Your task to perform on an android device: Search for sushi restaurants on Maps Image 0: 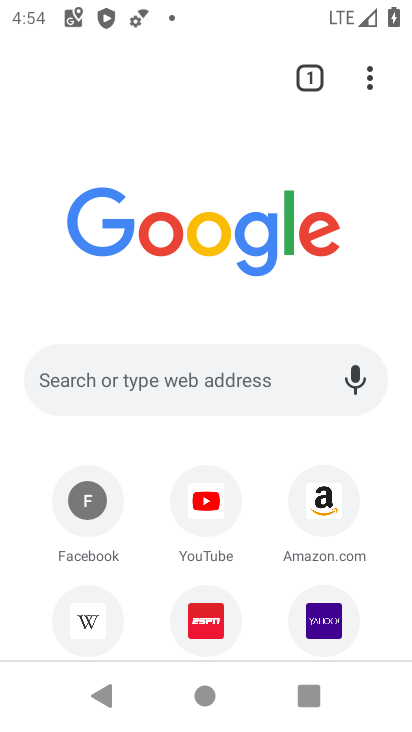
Step 0: press home button
Your task to perform on an android device: Search for sushi restaurants on Maps Image 1: 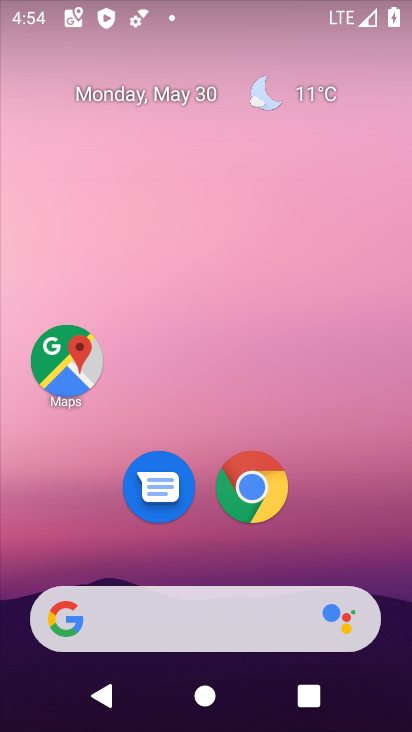
Step 1: click (68, 363)
Your task to perform on an android device: Search for sushi restaurants on Maps Image 2: 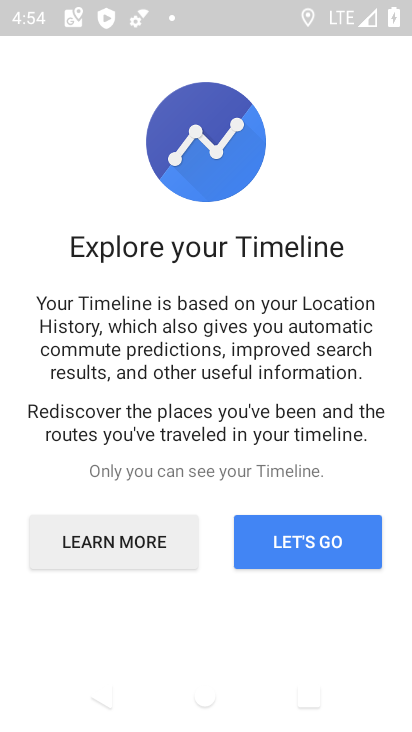
Step 2: press back button
Your task to perform on an android device: Search for sushi restaurants on Maps Image 3: 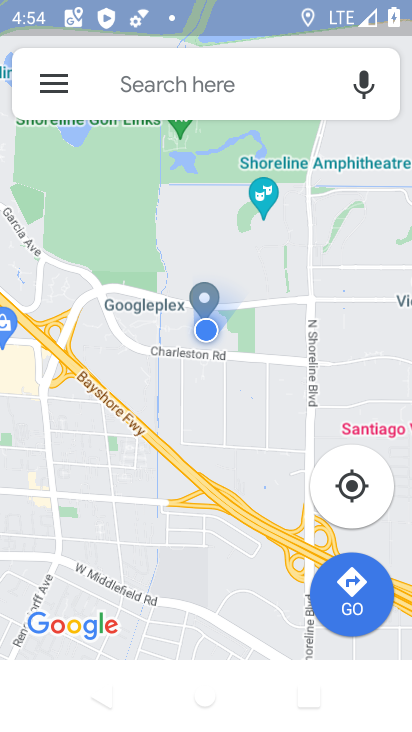
Step 3: click (164, 76)
Your task to perform on an android device: Search for sushi restaurants on Maps Image 4: 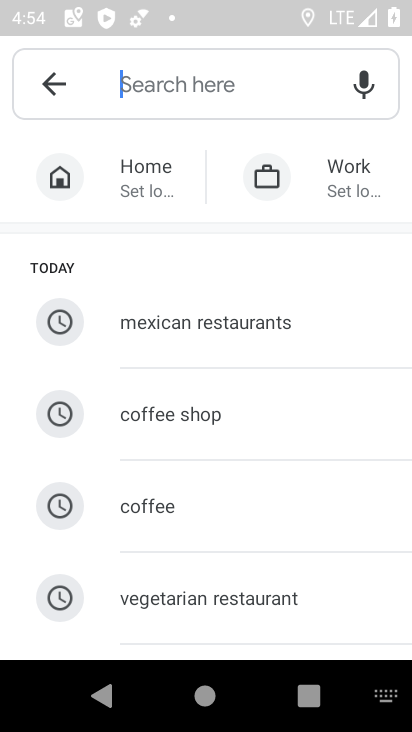
Step 4: type "sushi restaurants"
Your task to perform on an android device: Search for sushi restaurants on Maps Image 5: 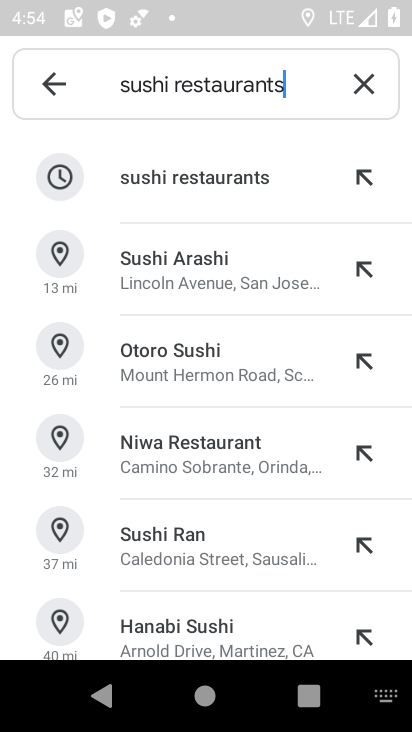
Step 5: click (145, 176)
Your task to perform on an android device: Search for sushi restaurants on Maps Image 6: 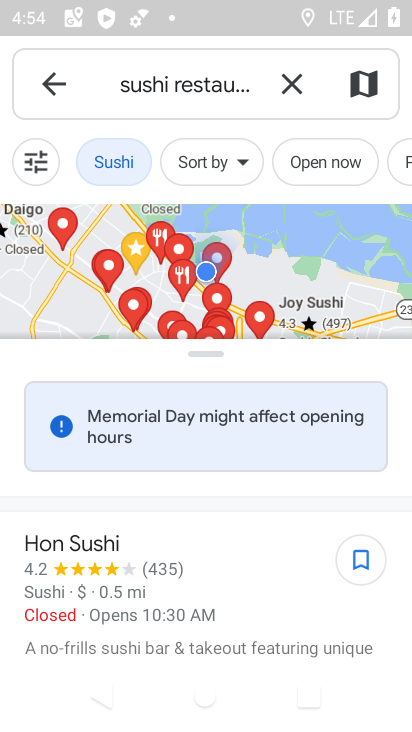
Step 6: task complete